Your task to perform on an android device: Search for vegetarian restaurants on Maps Image 0: 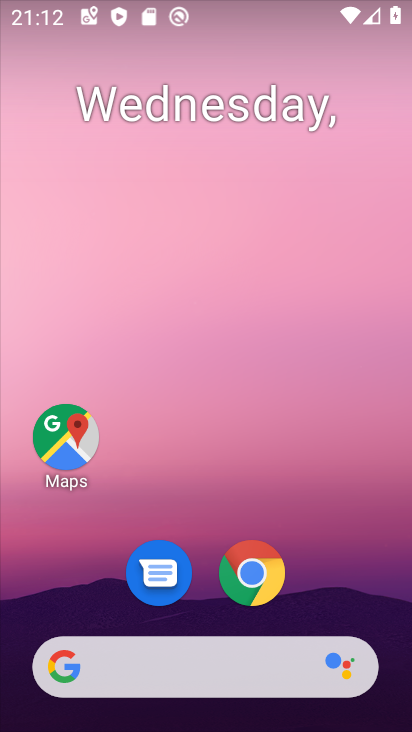
Step 0: click (242, 570)
Your task to perform on an android device: Search for vegetarian restaurants on Maps Image 1: 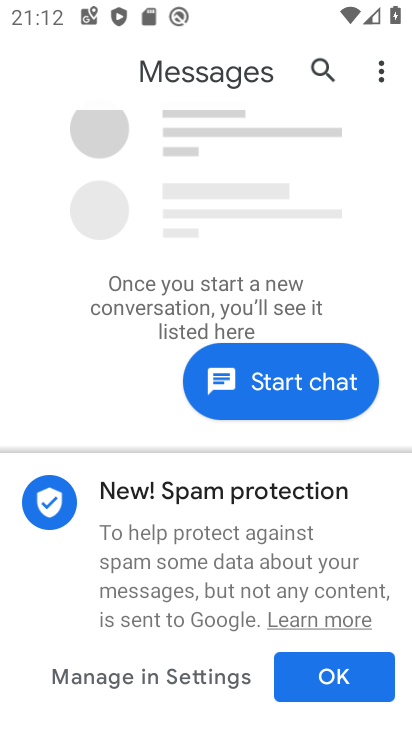
Step 1: press home button
Your task to perform on an android device: Search for vegetarian restaurants on Maps Image 2: 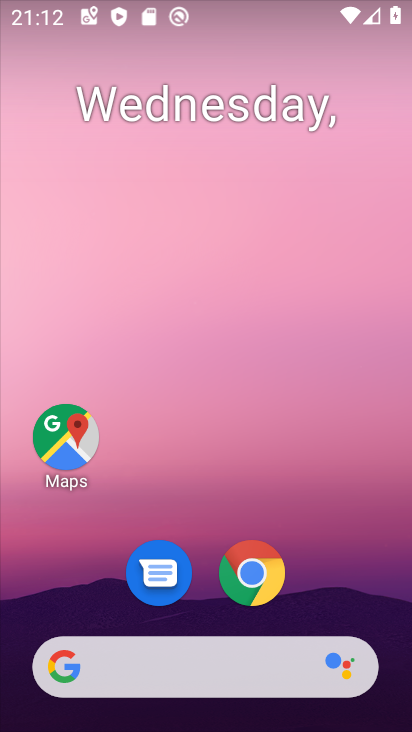
Step 2: click (73, 429)
Your task to perform on an android device: Search for vegetarian restaurants on Maps Image 3: 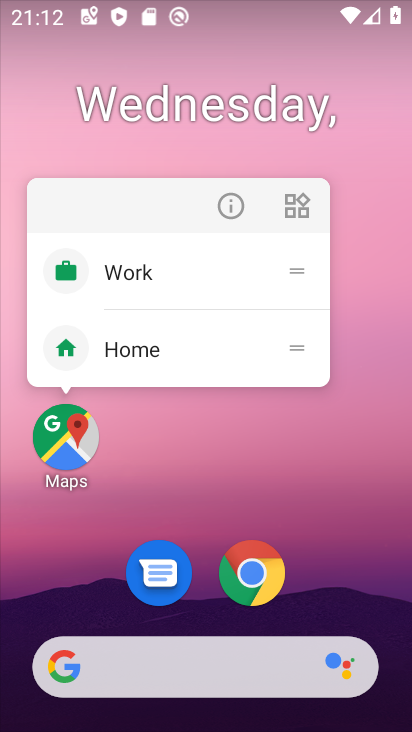
Step 3: click (83, 418)
Your task to perform on an android device: Search for vegetarian restaurants on Maps Image 4: 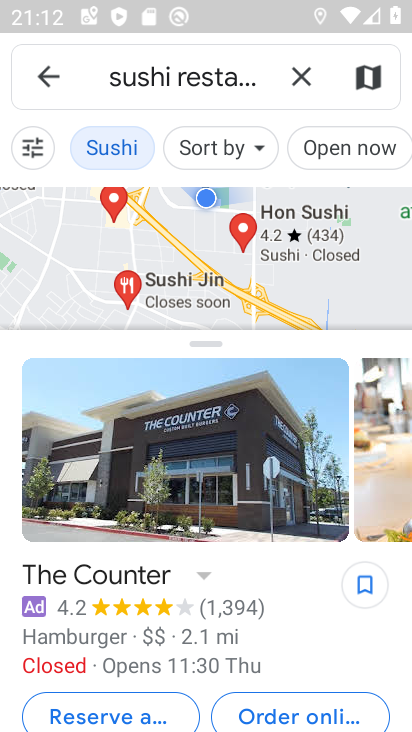
Step 4: click (298, 63)
Your task to perform on an android device: Search for vegetarian restaurants on Maps Image 5: 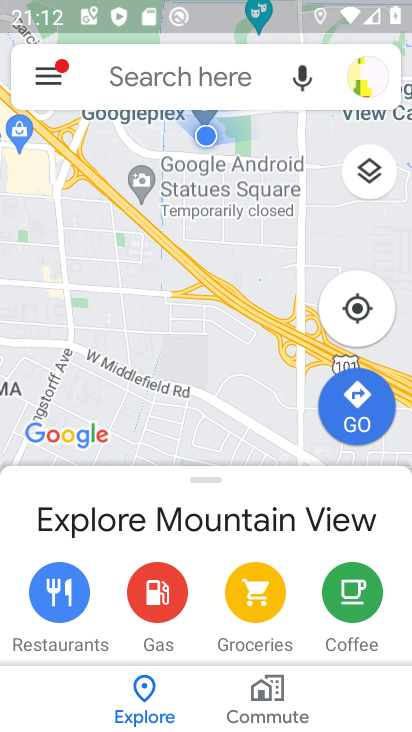
Step 5: type "vegetarian restaurants"
Your task to perform on an android device: Search for vegetarian restaurants on Maps Image 6: 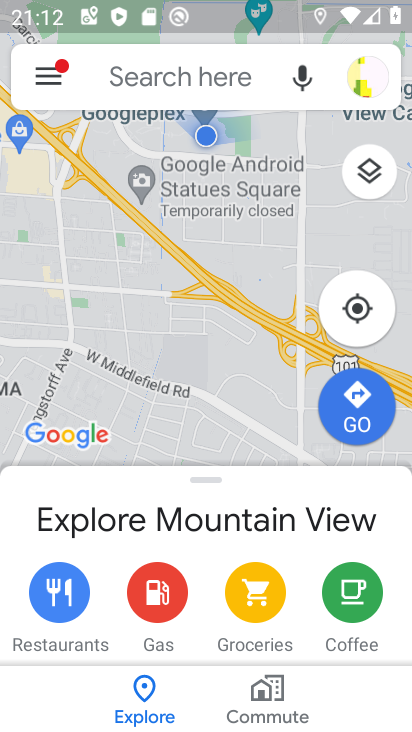
Step 6: click (159, 70)
Your task to perform on an android device: Search for vegetarian restaurants on Maps Image 7: 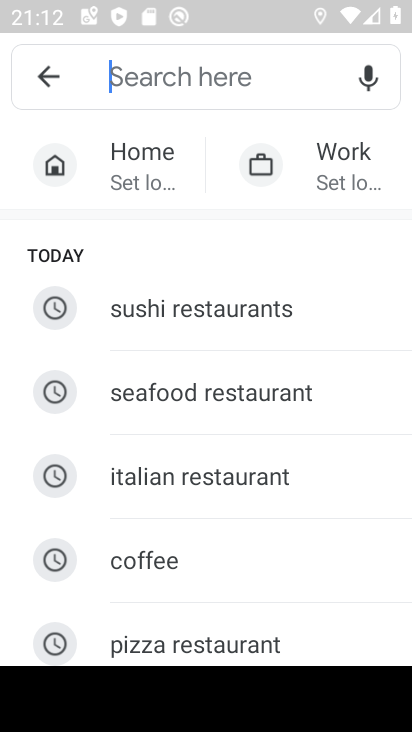
Step 7: type "vegetarian restaurants"
Your task to perform on an android device: Search for vegetarian restaurants on Maps Image 8: 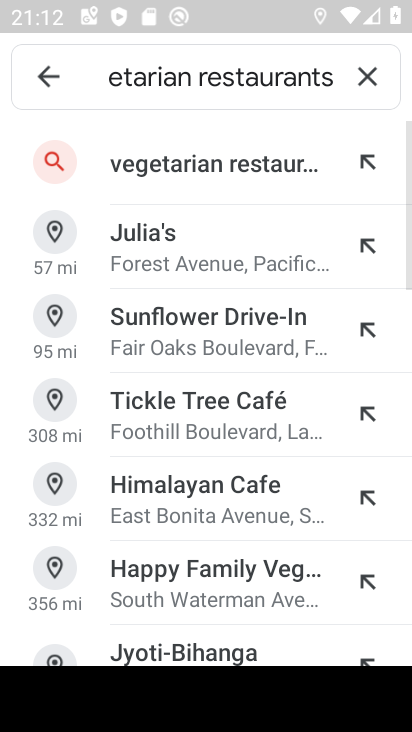
Step 8: click (132, 171)
Your task to perform on an android device: Search for vegetarian restaurants on Maps Image 9: 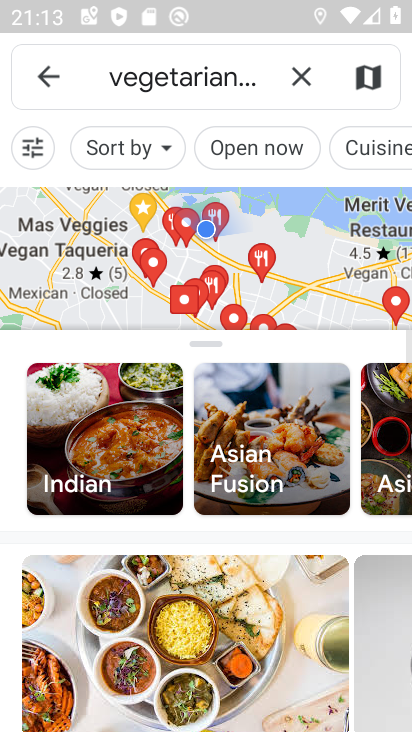
Step 9: task complete